Your task to perform on an android device: change notification settings in the gmail app Image 0: 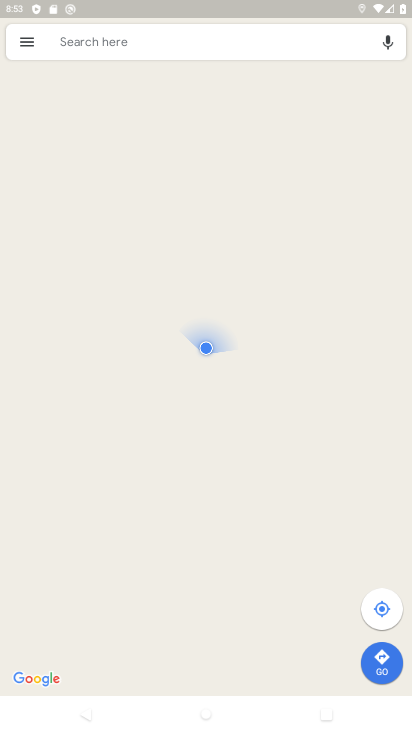
Step 0: press home button
Your task to perform on an android device: change notification settings in the gmail app Image 1: 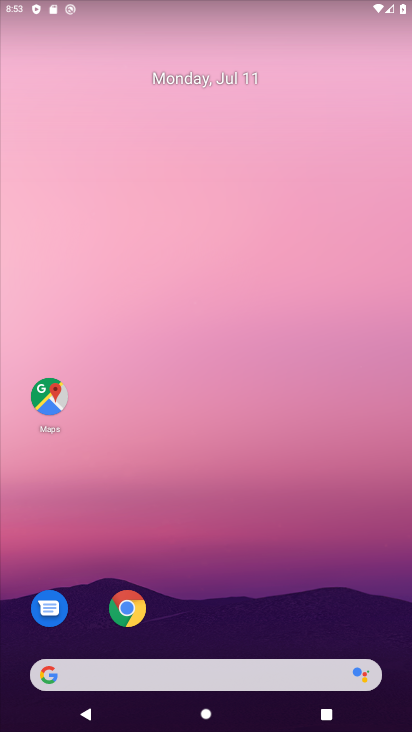
Step 1: drag from (225, 672) to (225, 188)
Your task to perform on an android device: change notification settings in the gmail app Image 2: 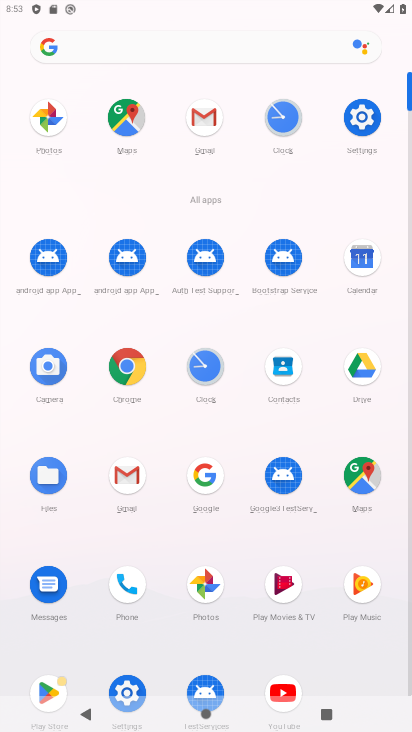
Step 2: click (129, 478)
Your task to perform on an android device: change notification settings in the gmail app Image 3: 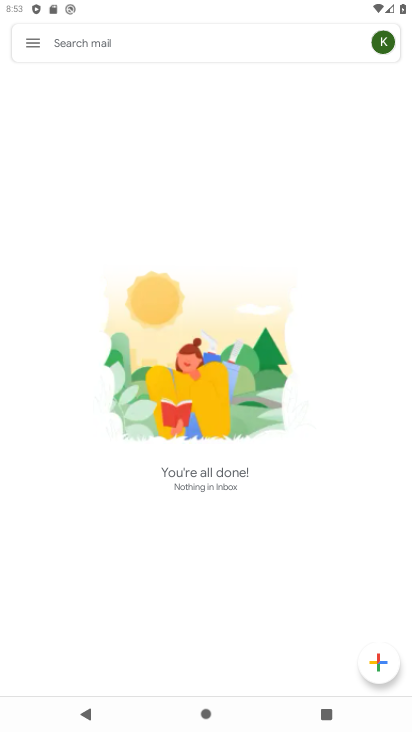
Step 3: click (43, 43)
Your task to perform on an android device: change notification settings in the gmail app Image 4: 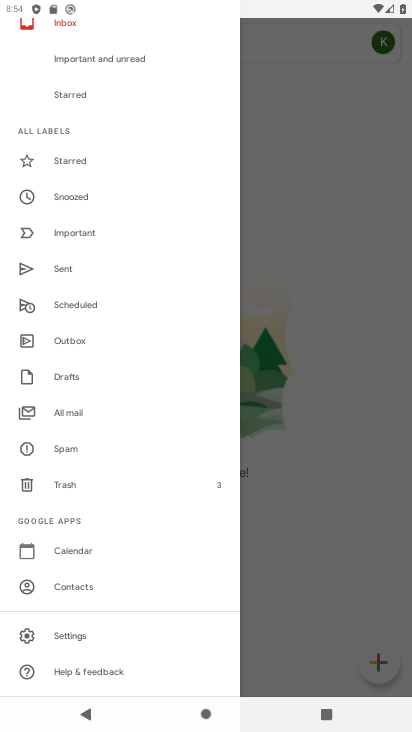
Step 4: click (99, 633)
Your task to perform on an android device: change notification settings in the gmail app Image 5: 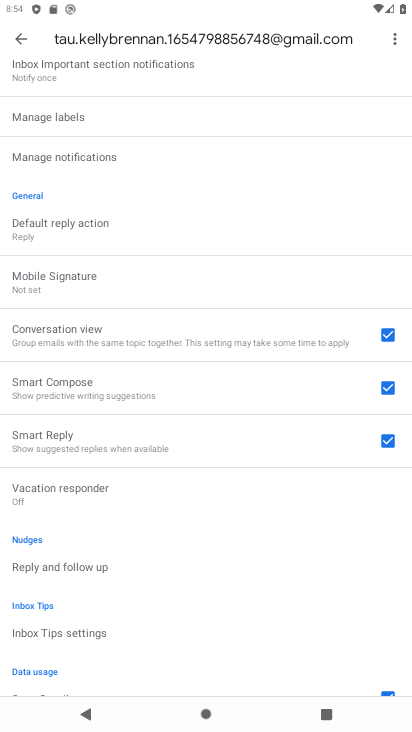
Step 5: drag from (155, 133) to (133, 271)
Your task to perform on an android device: change notification settings in the gmail app Image 6: 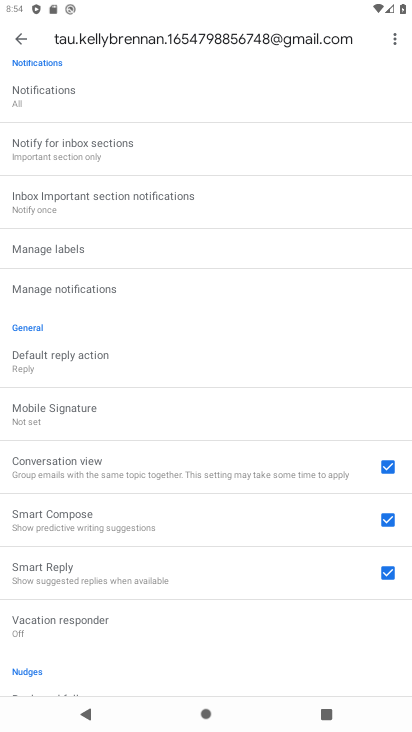
Step 6: click (101, 290)
Your task to perform on an android device: change notification settings in the gmail app Image 7: 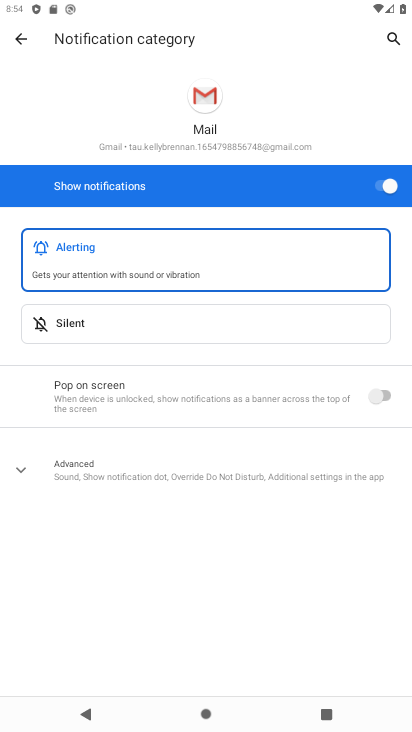
Step 7: click (383, 186)
Your task to perform on an android device: change notification settings in the gmail app Image 8: 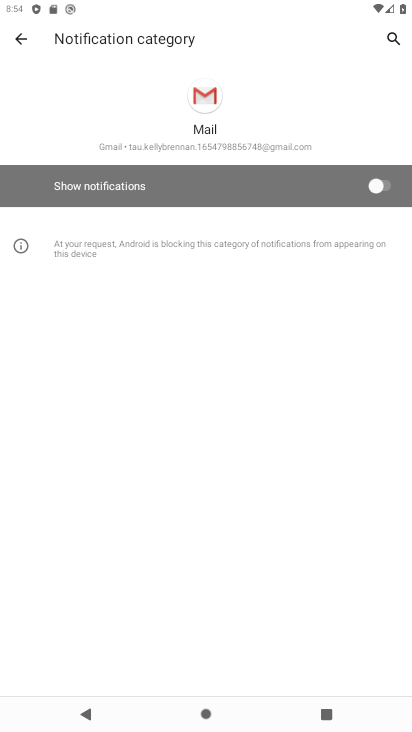
Step 8: task complete